Your task to perform on an android device: Go to settings Image 0: 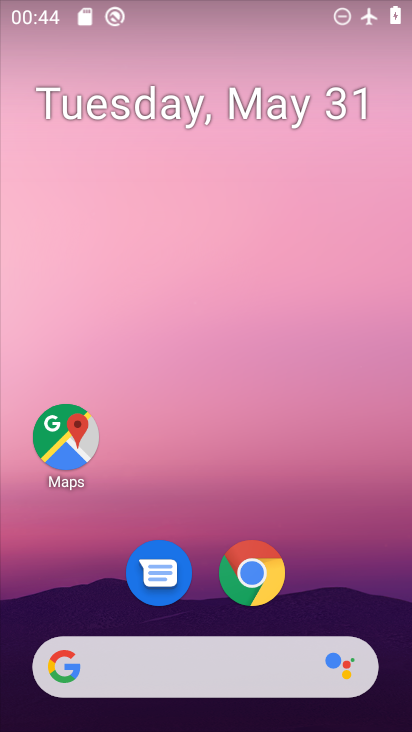
Step 0: drag from (240, 724) to (222, 2)
Your task to perform on an android device: Go to settings Image 1: 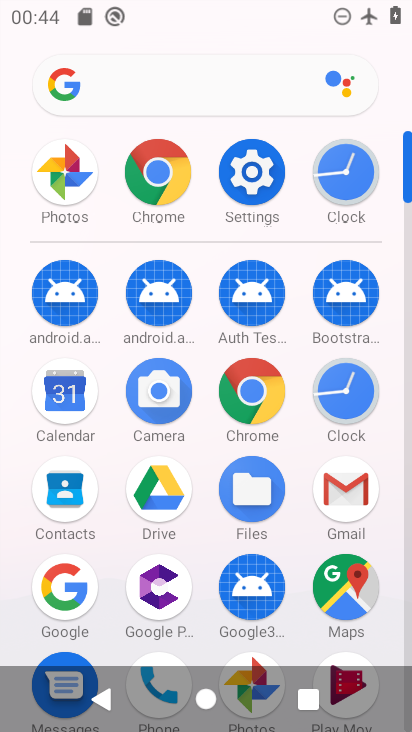
Step 1: click (250, 172)
Your task to perform on an android device: Go to settings Image 2: 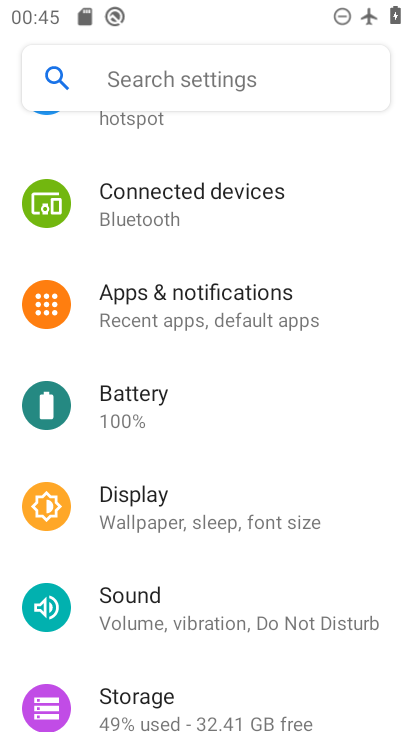
Step 2: task complete